Your task to perform on an android device: Open Youtube and go to "Your channel" Image 0: 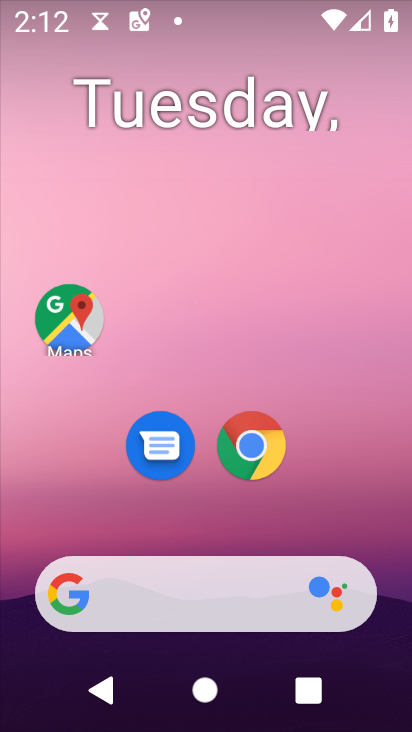
Step 0: drag from (244, 545) to (298, 28)
Your task to perform on an android device: Open Youtube and go to "Your channel" Image 1: 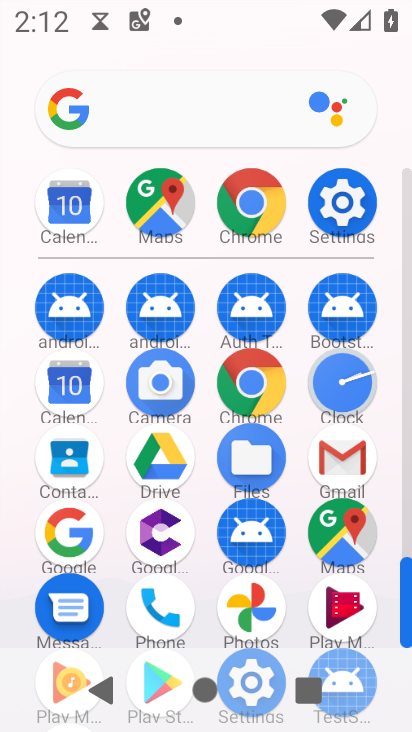
Step 1: drag from (282, 643) to (301, 267)
Your task to perform on an android device: Open Youtube and go to "Your channel" Image 2: 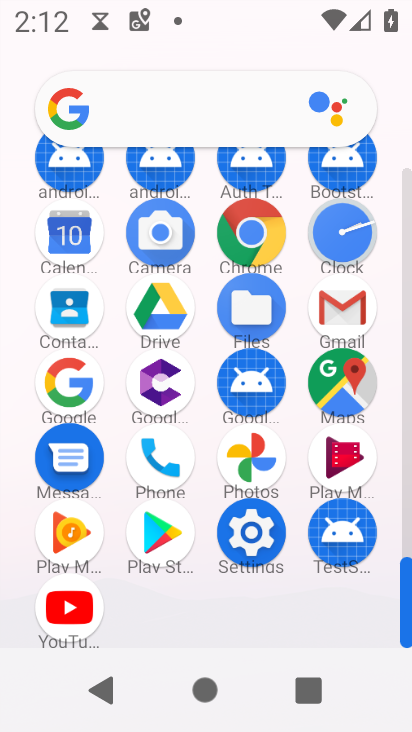
Step 2: click (78, 614)
Your task to perform on an android device: Open Youtube and go to "Your channel" Image 3: 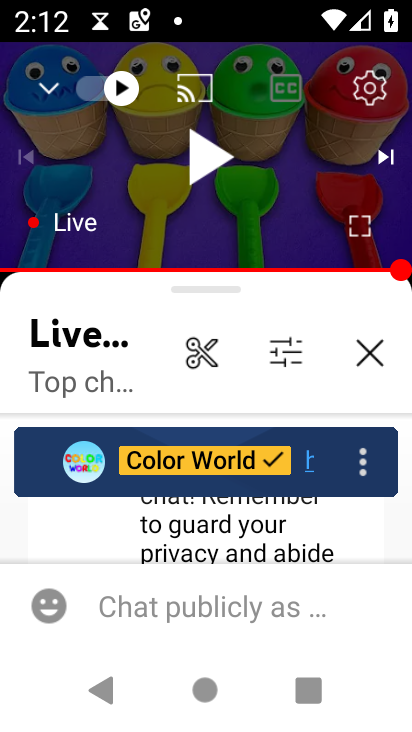
Step 3: press back button
Your task to perform on an android device: Open Youtube and go to "Your channel" Image 4: 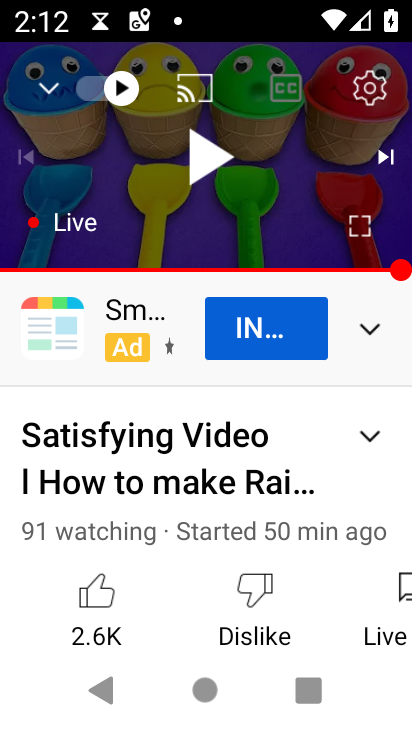
Step 4: press back button
Your task to perform on an android device: Open Youtube and go to "Your channel" Image 5: 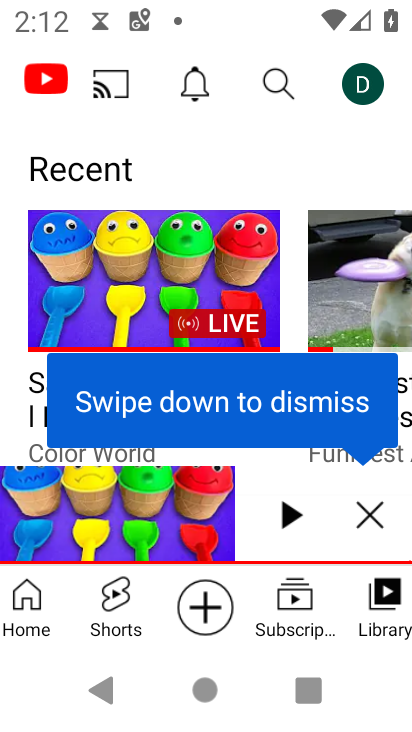
Step 5: click (370, 91)
Your task to perform on an android device: Open Youtube and go to "Your channel" Image 6: 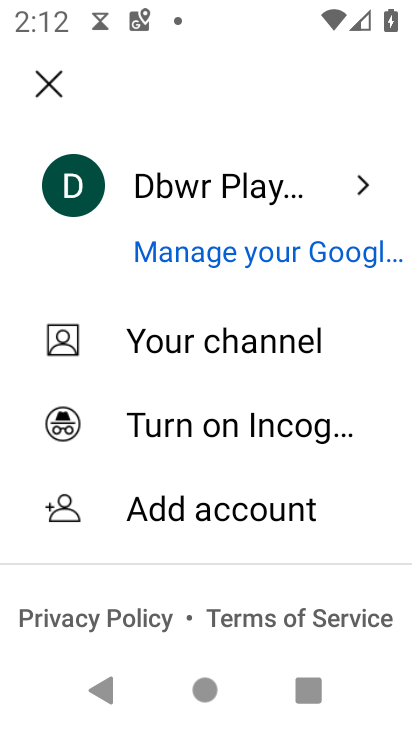
Step 6: click (172, 354)
Your task to perform on an android device: Open Youtube and go to "Your channel" Image 7: 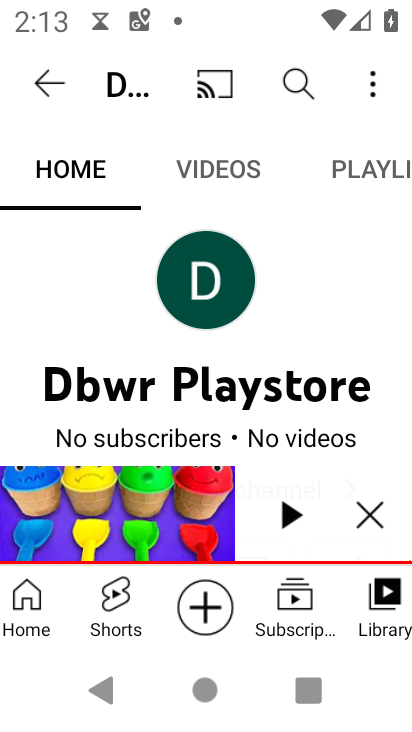
Step 7: task complete